Your task to perform on an android device: empty trash in google photos Image 0: 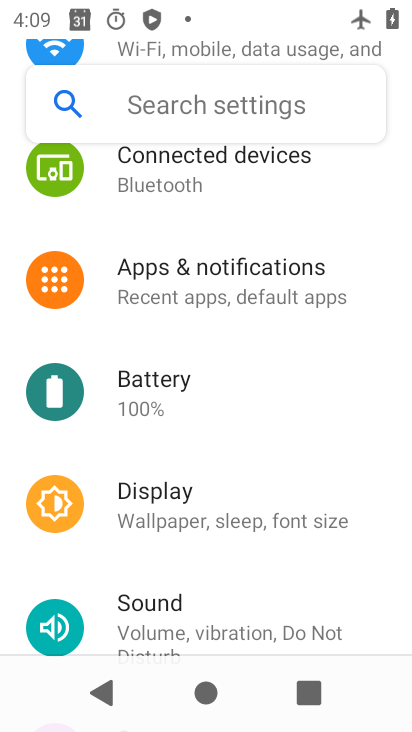
Step 0: press home button
Your task to perform on an android device: empty trash in google photos Image 1: 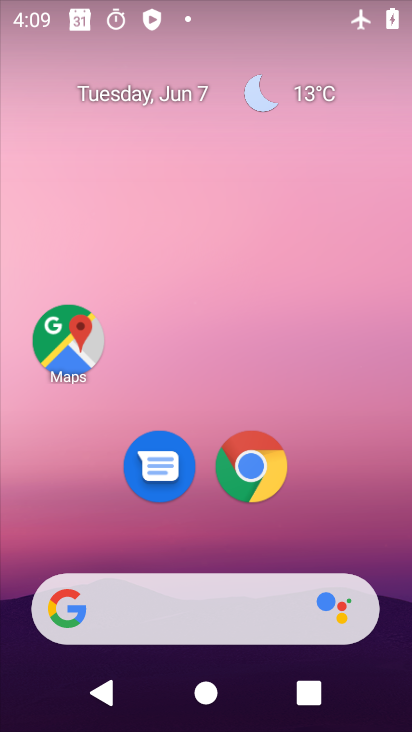
Step 1: drag from (383, 521) to (288, 153)
Your task to perform on an android device: empty trash in google photos Image 2: 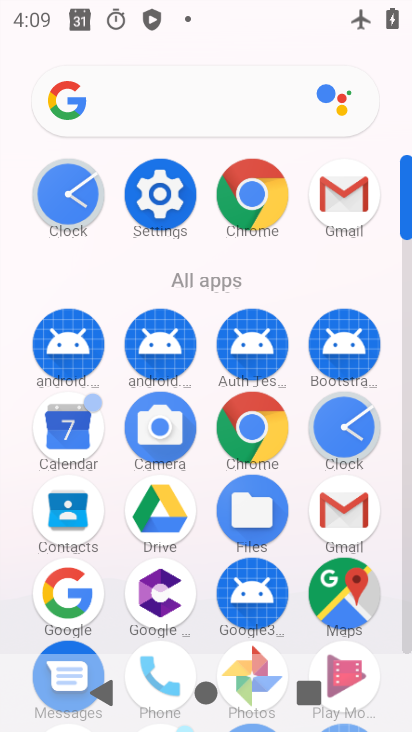
Step 2: click (266, 646)
Your task to perform on an android device: empty trash in google photos Image 3: 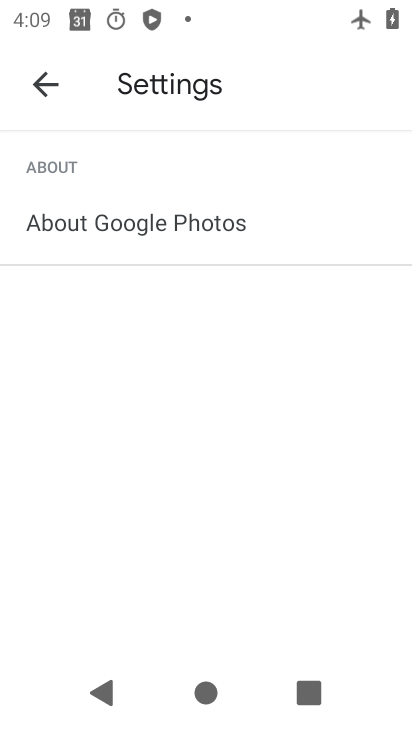
Step 3: click (56, 94)
Your task to perform on an android device: empty trash in google photos Image 4: 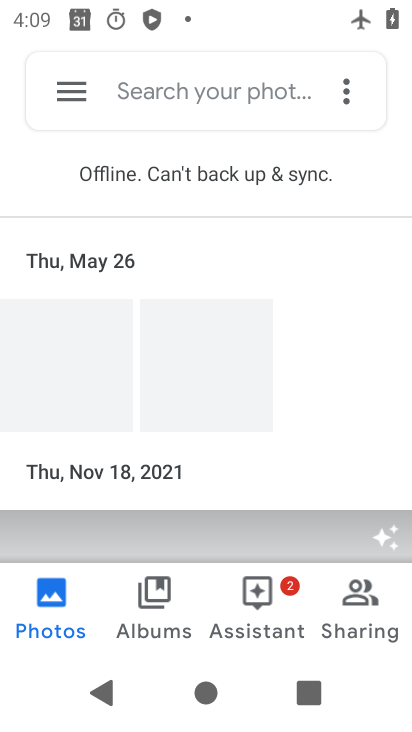
Step 4: click (71, 92)
Your task to perform on an android device: empty trash in google photos Image 5: 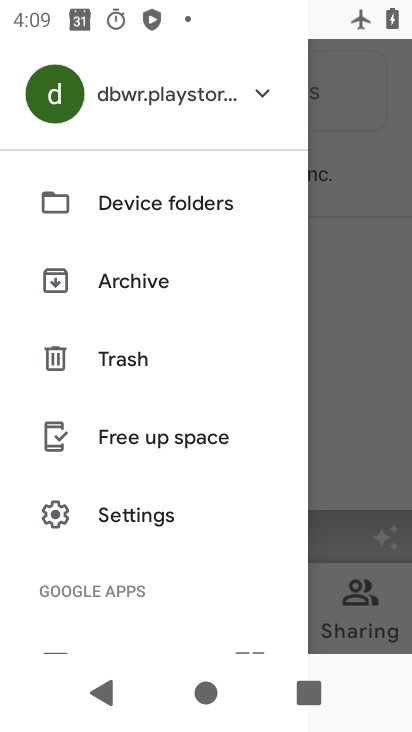
Step 5: click (138, 368)
Your task to perform on an android device: empty trash in google photos Image 6: 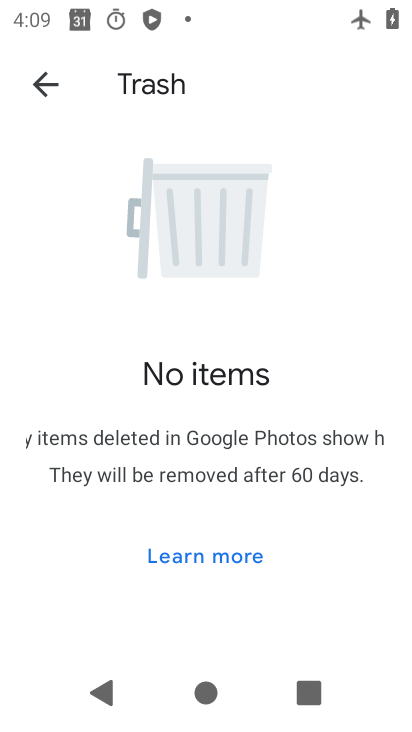
Step 6: task complete